Your task to perform on an android device: create a new album in the google photos Image 0: 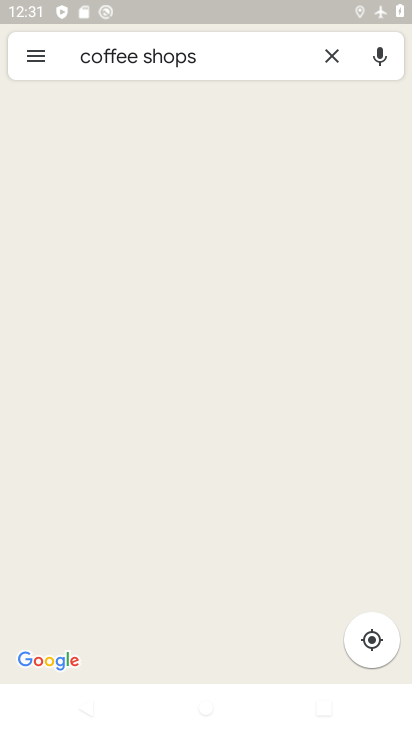
Step 0: press home button
Your task to perform on an android device: create a new album in the google photos Image 1: 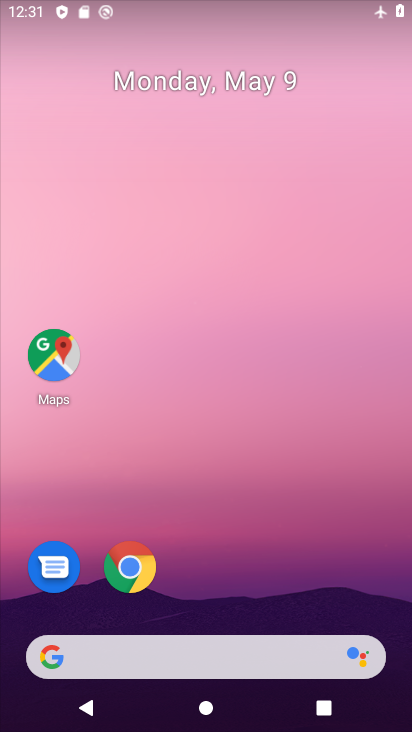
Step 1: drag from (198, 564) to (230, 6)
Your task to perform on an android device: create a new album in the google photos Image 2: 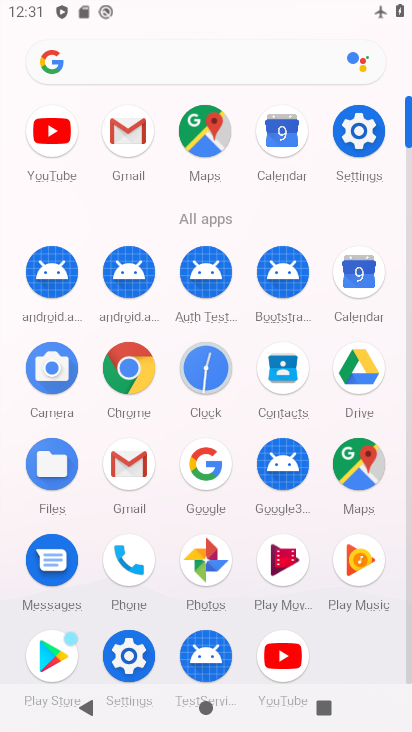
Step 2: click (194, 559)
Your task to perform on an android device: create a new album in the google photos Image 3: 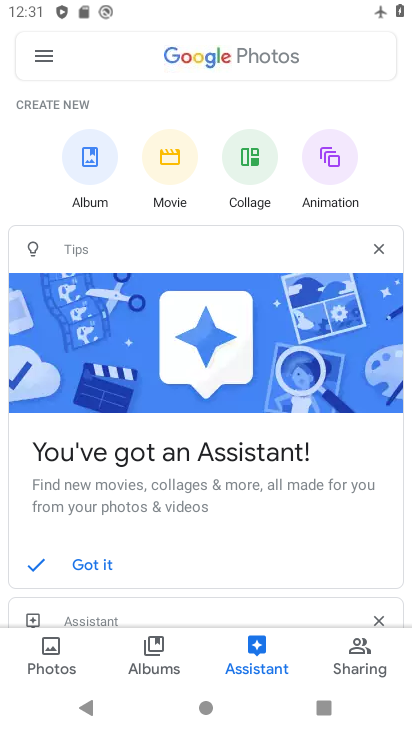
Step 3: drag from (194, 558) to (261, 189)
Your task to perform on an android device: create a new album in the google photos Image 4: 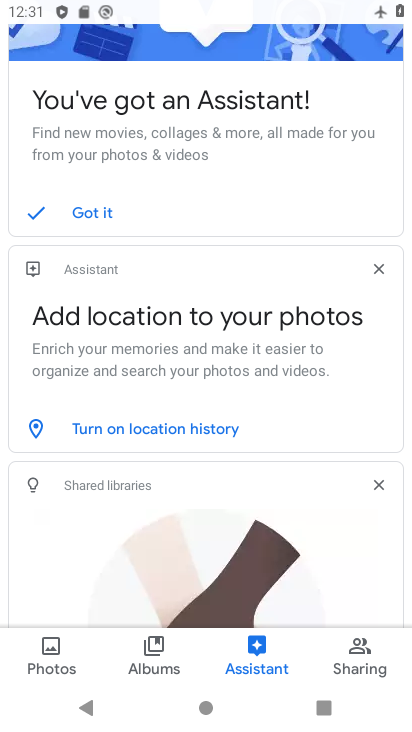
Step 4: drag from (85, 187) to (82, 386)
Your task to perform on an android device: create a new album in the google photos Image 5: 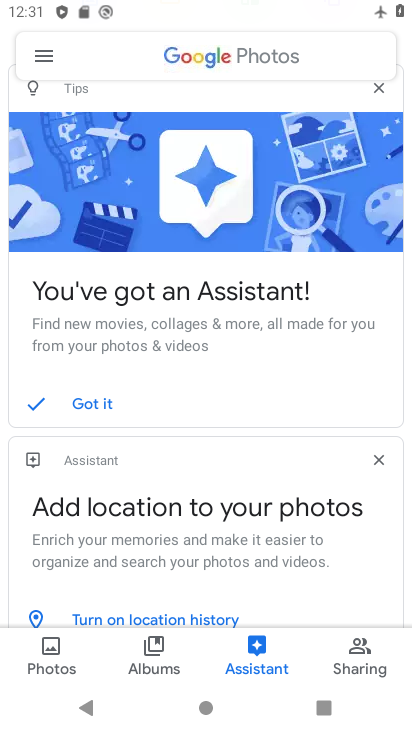
Step 5: click (166, 635)
Your task to perform on an android device: create a new album in the google photos Image 6: 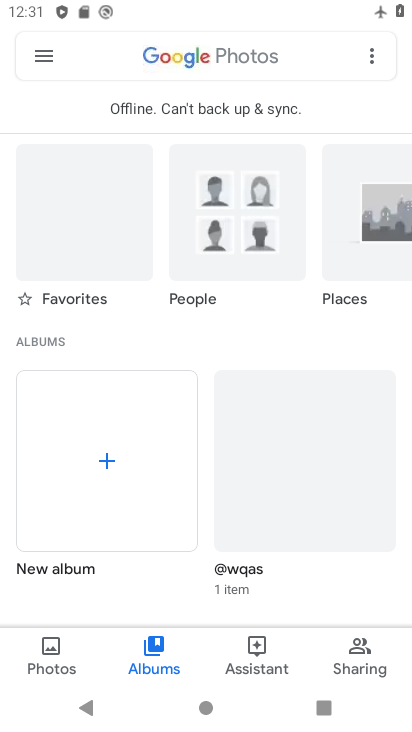
Step 6: click (112, 475)
Your task to perform on an android device: create a new album in the google photos Image 7: 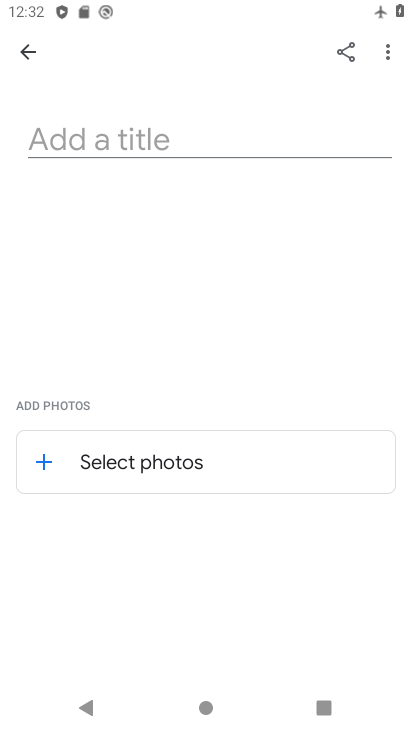
Step 7: click (141, 141)
Your task to perform on an android device: create a new album in the google photos Image 8: 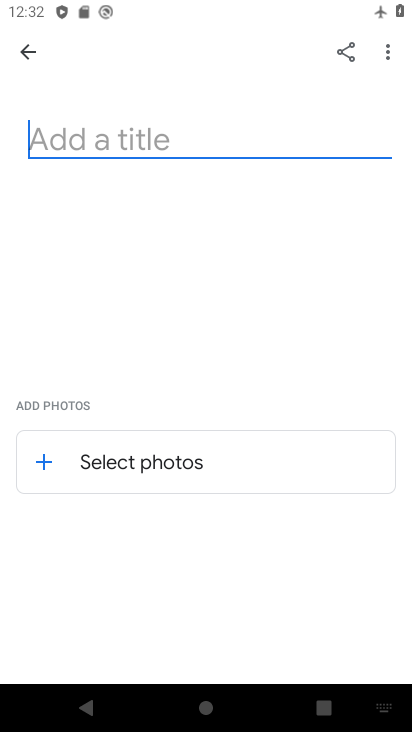
Step 8: type "allfred"
Your task to perform on an android device: create a new album in the google photos Image 9: 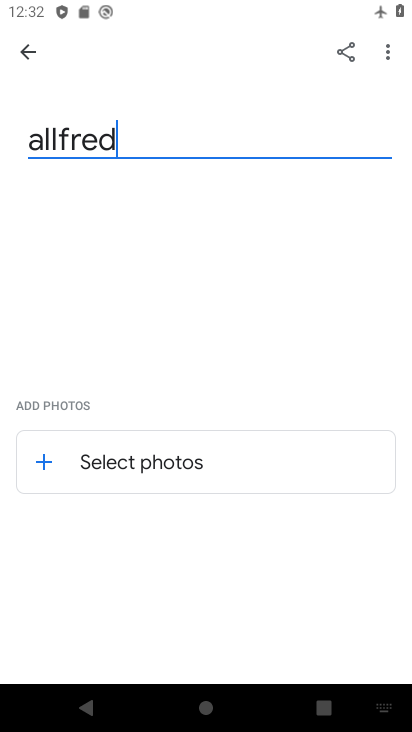
Step 9: click (26, 465)
Your task to perform on an android device: create a new album in the google photos Image 10: 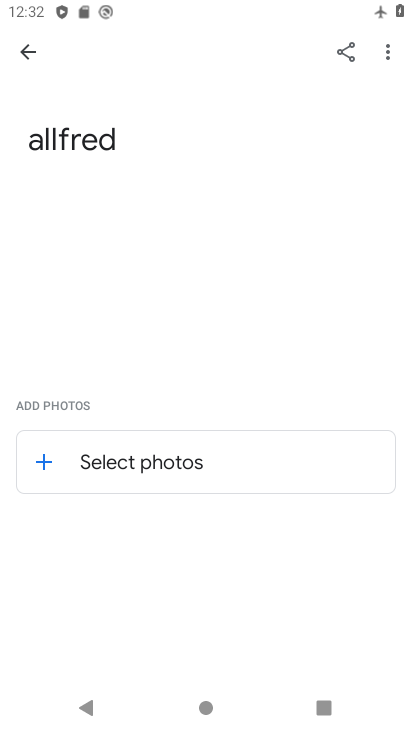
Step 10: click (41, 459)
Your task to perform on an android device: create a new album in the google photos Image 11: 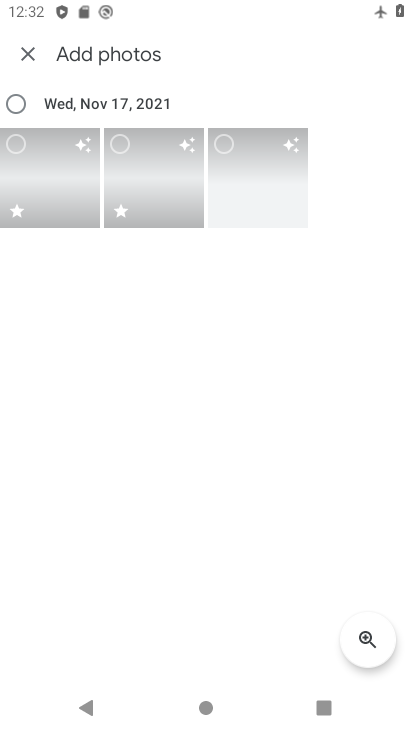
Step 11: click (19, 203)
Your task to perform on an android device: create a new album in the google photos Image 12: 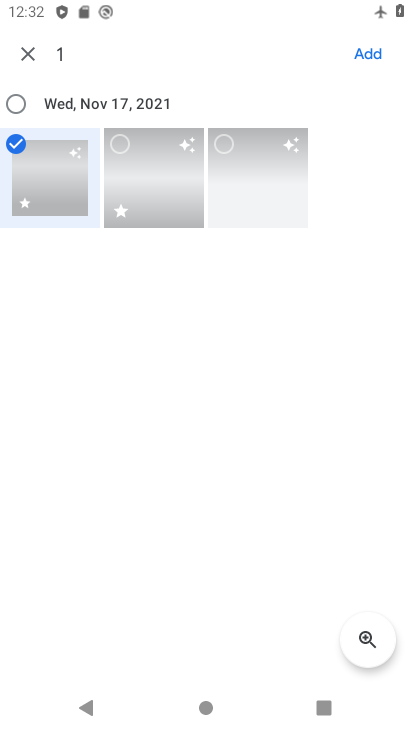
Step 12: click (144, 172)
Your task to perform on an android device: create a new album in the google photos Image 13: 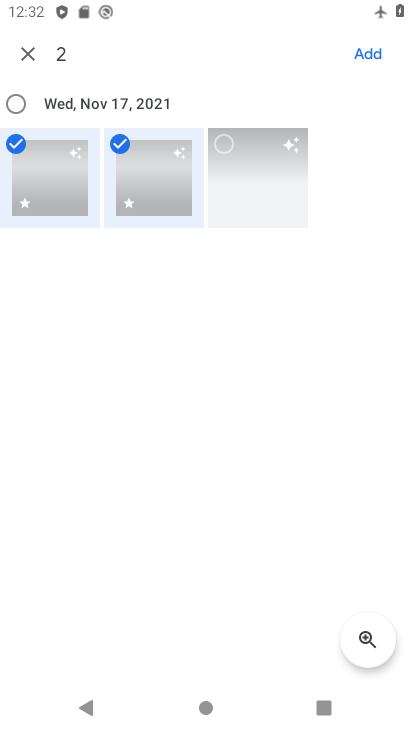
Step 13: click (241, 167)
Your task to perform on an android device: create a new album in the google photos Image 14: 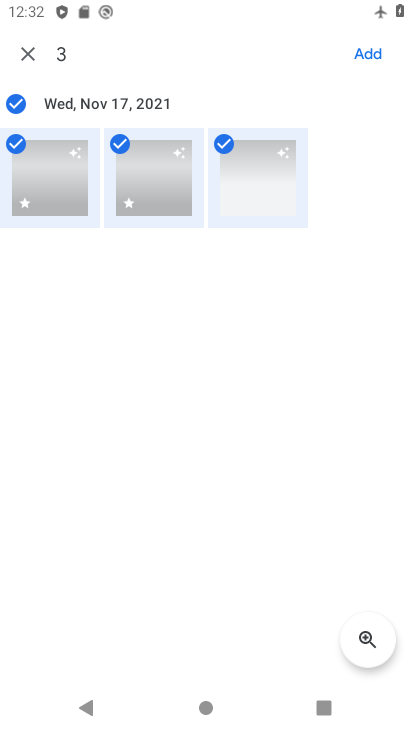
Step 14: click (366, 50)
Your task to perform on an android device: create a new album in the google photos Image 15: 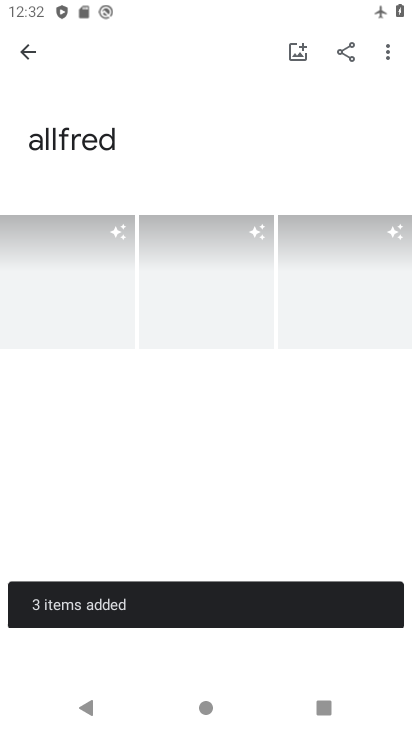
Step 15: task complete